Your task to perform on an android device: turn off airplane mode Image 0: 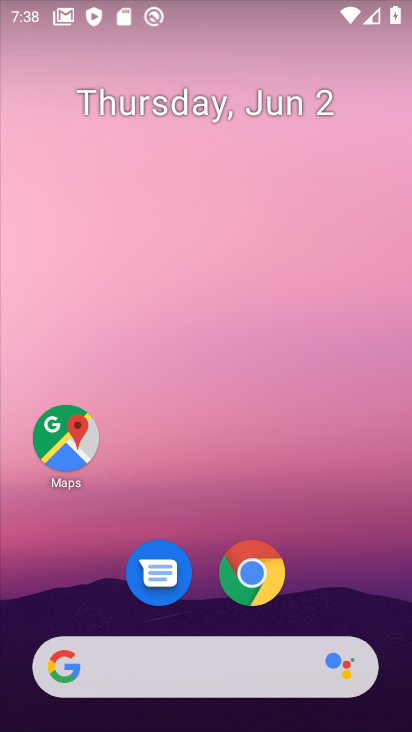
Step 0: drag from (393, 558) to (170, 8)
Your task to perform on an android device: turn off airplane mode Image 1: 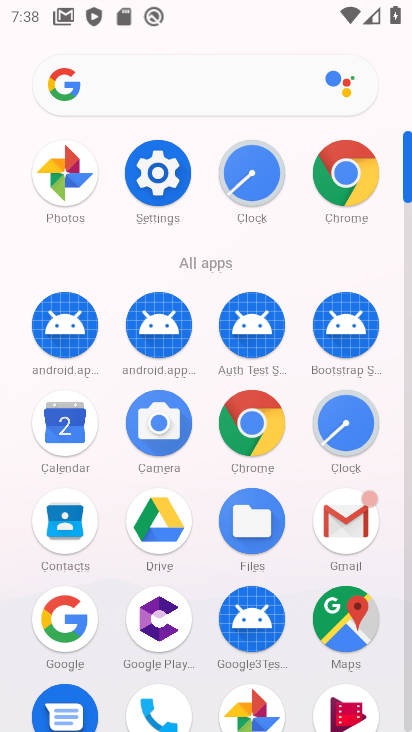
Step 1: click (154, 181)
Your task to perform on an android device: turn off airplane mode Image 2: 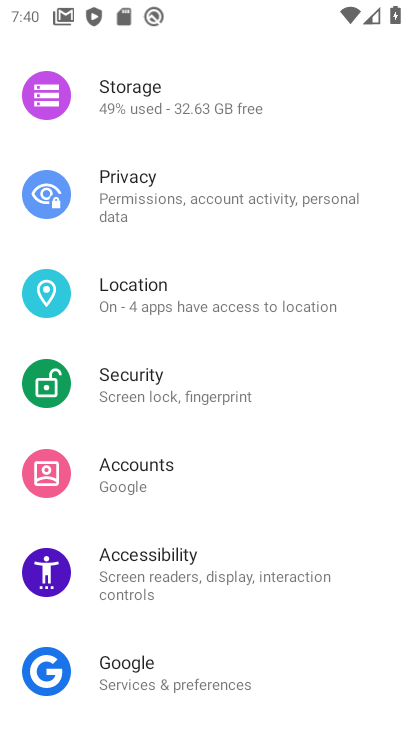
Step 2: drag from (134, 182) to (179, 665)
Your task to perform on an android device: turn off airplane mode Image 3: 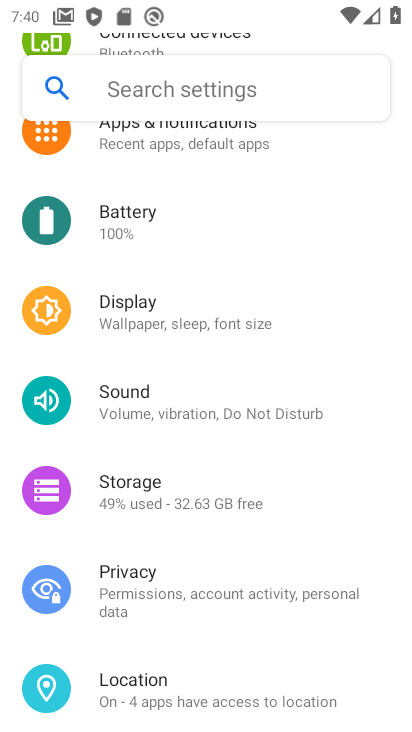
Step 3: drag from (203, 264) to (186, 723)
Your task to perform on an android device: turn off airplane mode Image 4: 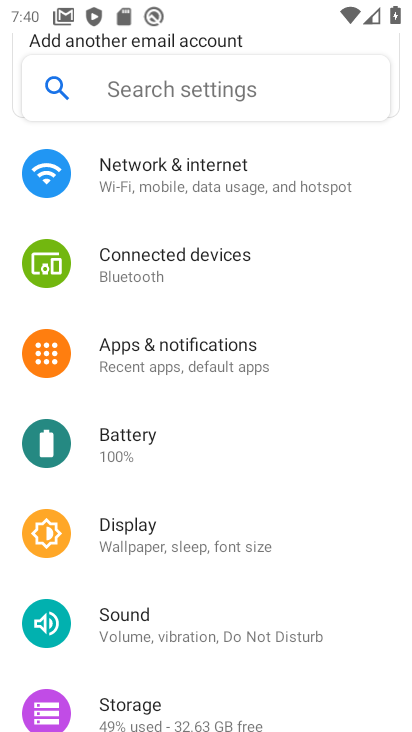
Step 4: drag from (225, 327) to (283, 673)
Your task to perform on an android device: turn off airplane mode Image 5: 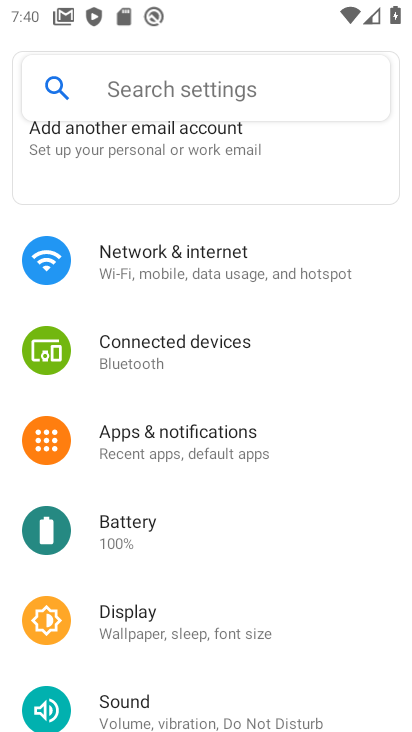
Step 5: click (167, 264)
Your task to perform on an android device: turn off airplane mode Image 6: 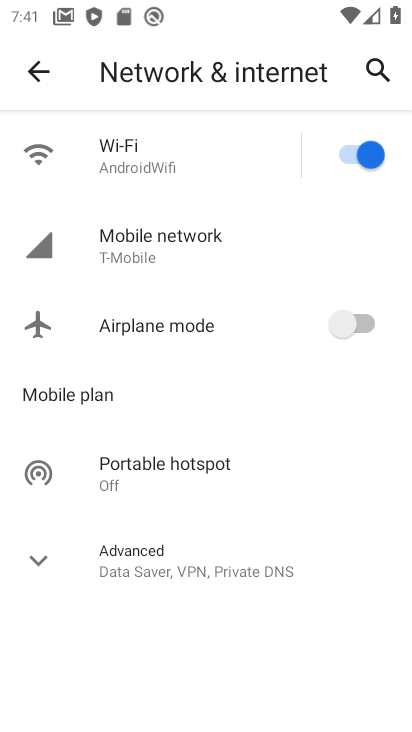
Step 6: task complete